Your task to perform on an android device: delete the emails in spam in the gmail app Image 0: 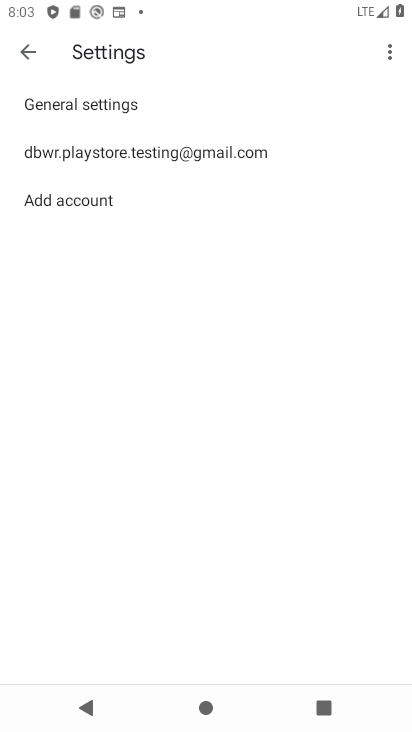
Step 0: press back button
Your task to perform on an android device: delete the emails in spam in the gmail app Image 1: 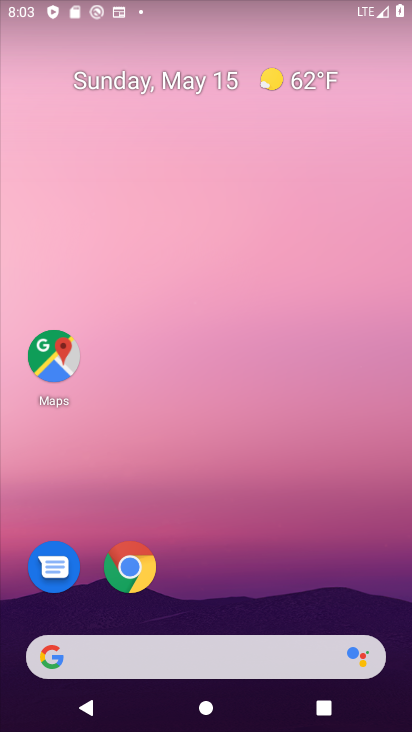
Step 1: drag from (241, 430) to (299, 97)
Your task to perform on an android device: delete the emails in spam in the gmail app Image 2: 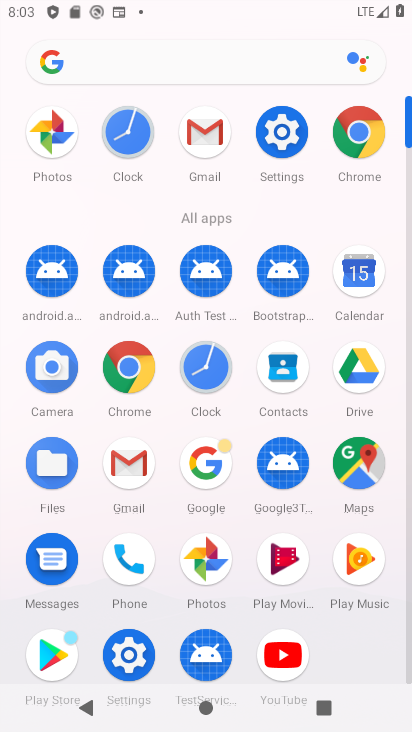
Step 2: click (215, 135)
Your task to perform on an android device: delete the emails in spam in the gmail app Image 3: 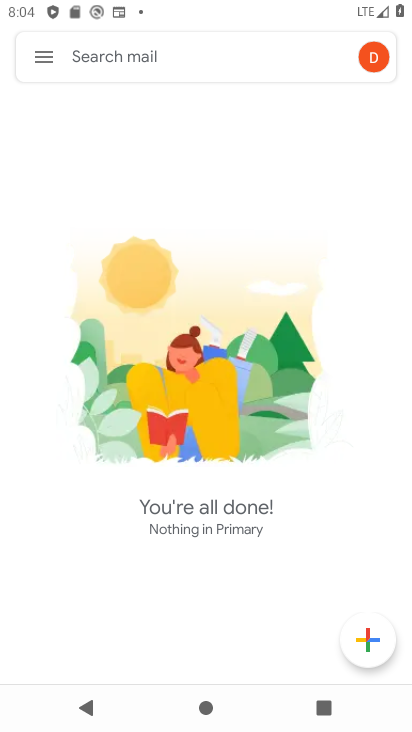
Step 3: click (35, 49)
Your task to perform on an android device: delete the emails in spam in the gmail app Image 4: 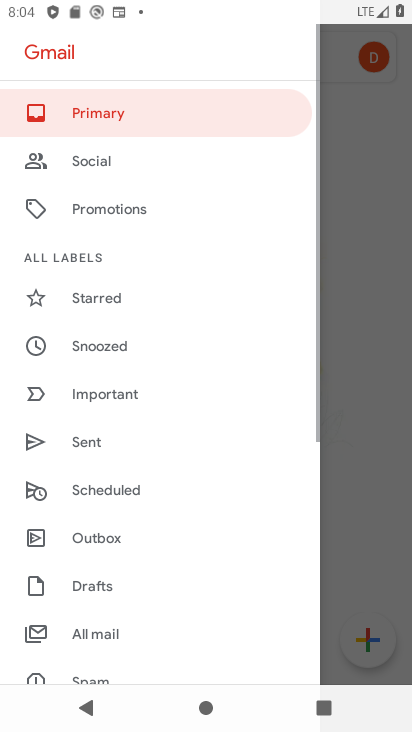
Step 4: drag from (157, 624) to (221, 217)
Your task to perform on an android device: delete the emails in spam in the gmail app Image 5: 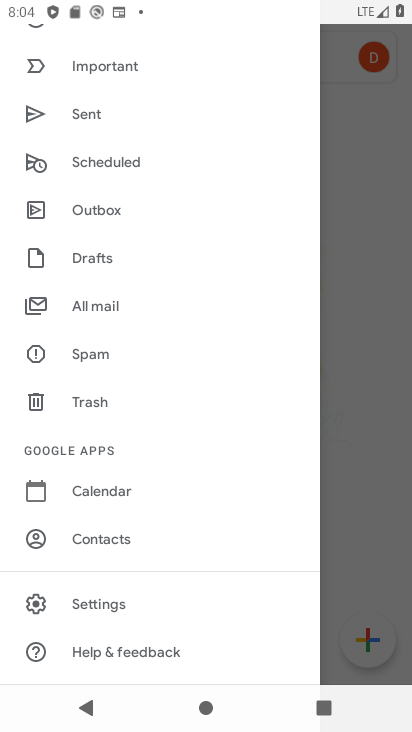
Step 5: click (111, 357)
Your task to perform on an android device: delete the emails in spam in the gmail app Image 6: 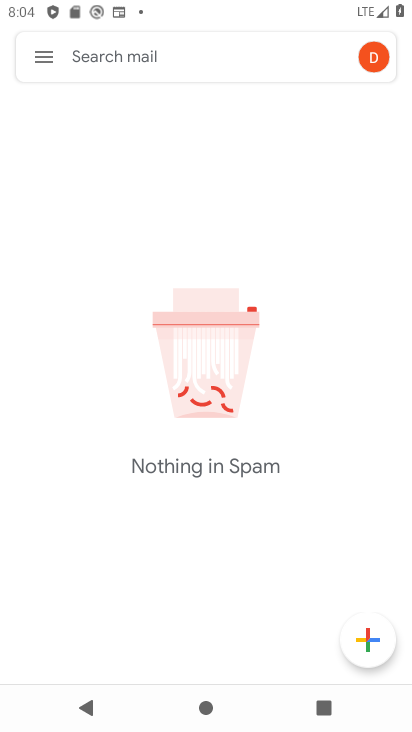
Step 6: task complete